Your task to perform on an android device: turn on data saver in the chrome app Image 0: 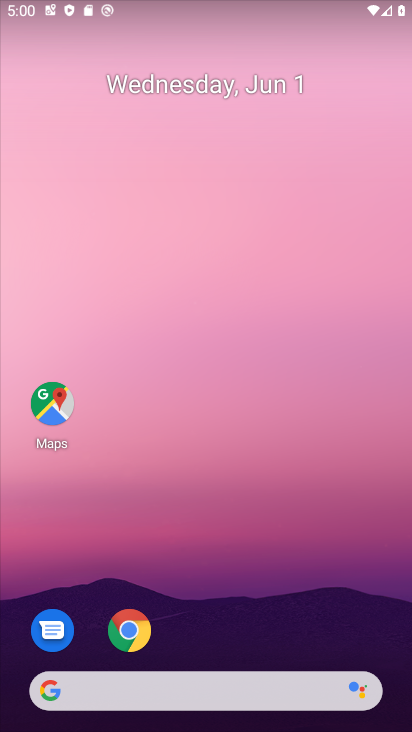
Step 0: drag from (187, 688) to (304, 121)
Your task to perform on an android device: turn on data saver in the chrome app Image 1: 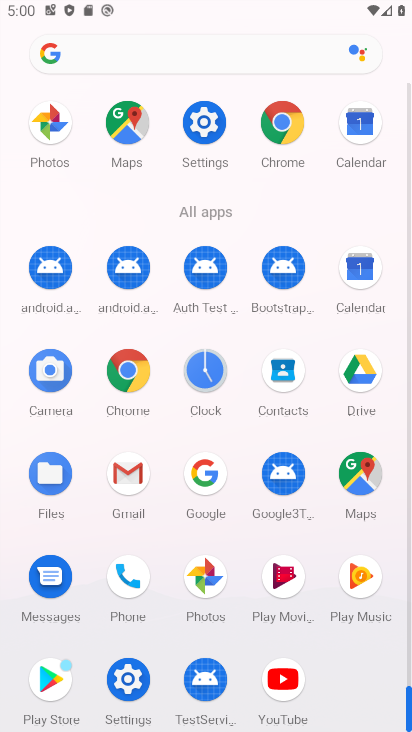
Step 1: click (126, 366)
Your task to perform on an android device: turn on data saver in the chrome app Image 2: 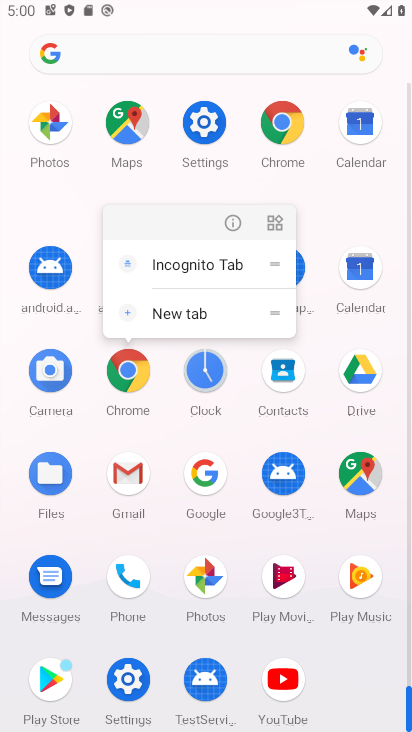
Step 2: click (136, 359)
Your task to perform on an android device: turn on data saver in the chrome app Image 3: 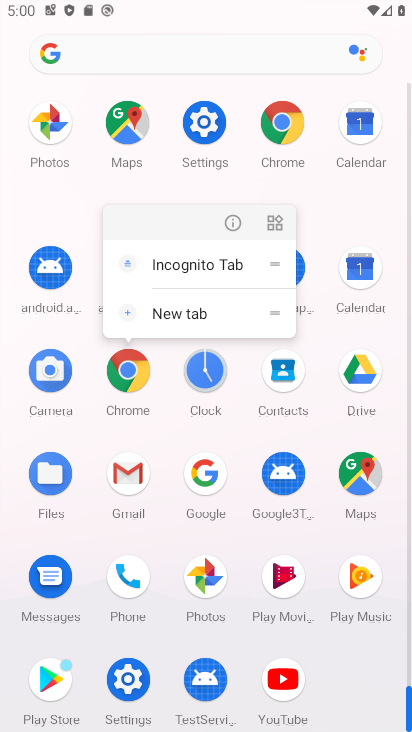
Step 3: click (137, 377)
Your task to perform on an android device: turn on data saver in the chrome app Image 4: 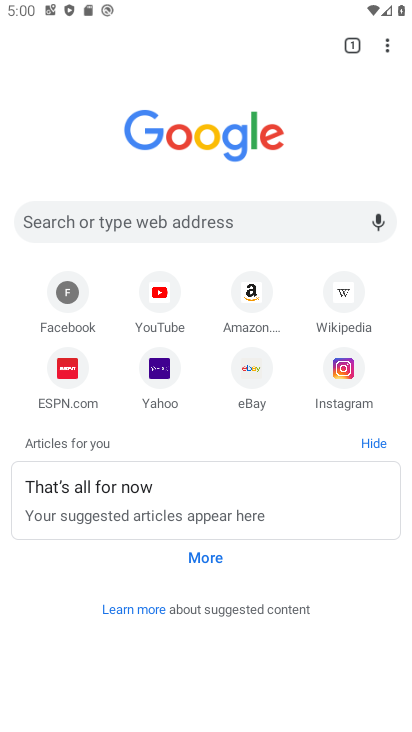
Step 4: drag from (390, 54) to (287, 384)
Your task to perform on an android device: turn on data saver in the chrome app Image 5: 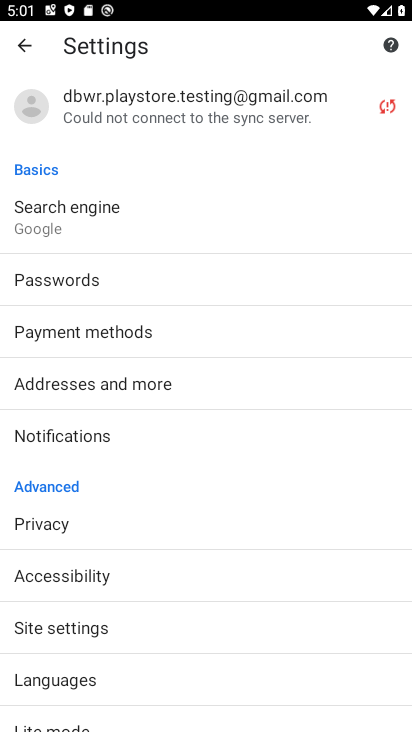
Step 5: drag from (165, 642) to (348, 208)
Your task to perform on an android device: turn on data saver in the chrome app Image 6: 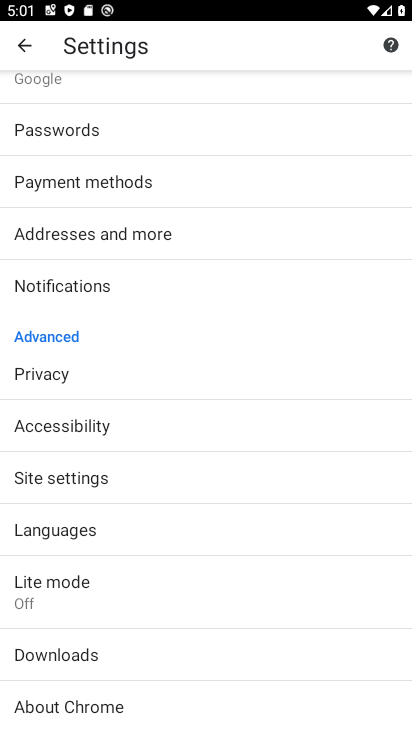
Step 6: click (144, 587)
Your task to perform on an android device: turn on data saver in the chrome app Image 7: 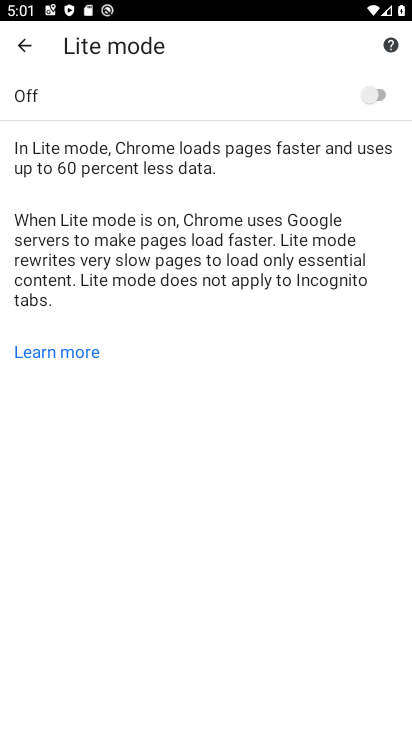
Step 7: click (398, 94)
Your task to perform on an android device: turn on data saver in the chrome app Image 8: 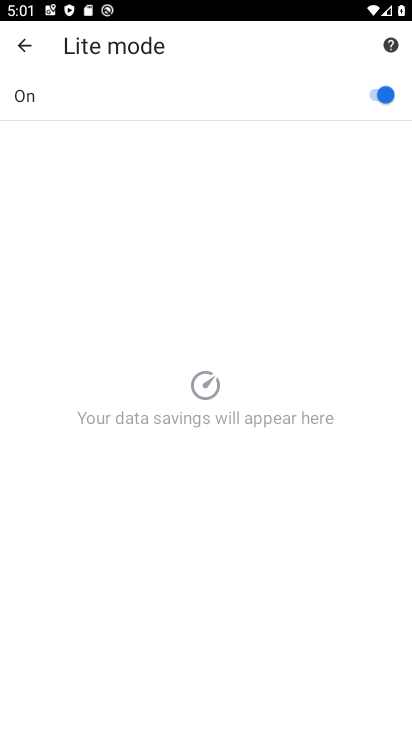
Step 8: task complete